Your task to perform on an android device: Open Google Maps Image 0: 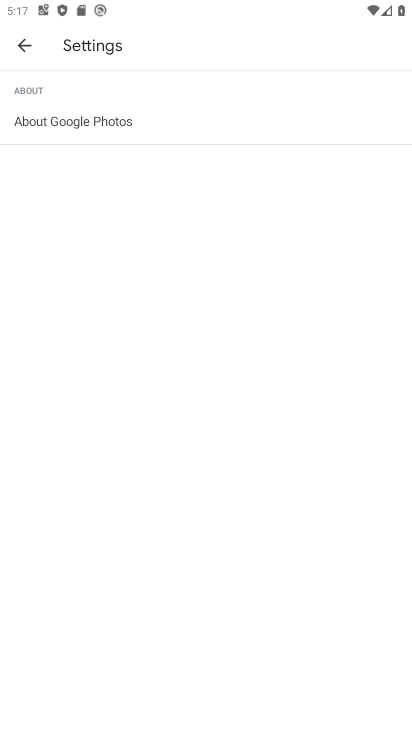
Step 0: click (133, 637)
Your task to perform on an android device: Open Google Maps Image 1: 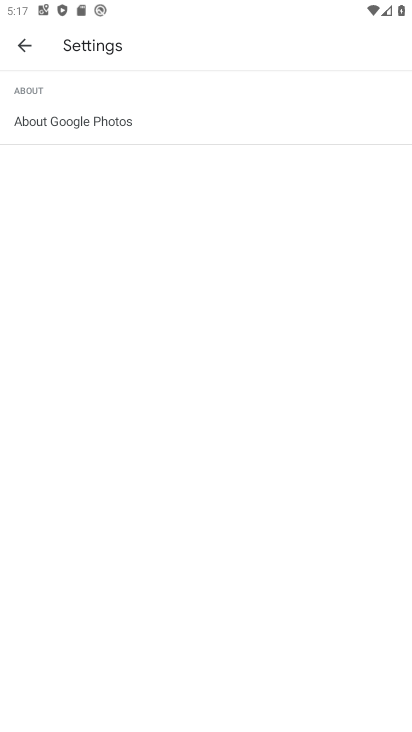
Step 1: press home button
Your task to perform on an android device: Open Google Maps Image 2: 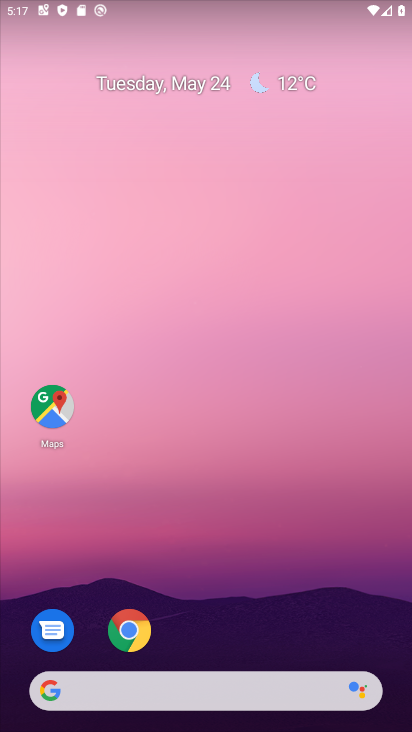
Step 2: click (122, 638)
Your task to perform on an android device: Open Google Maps Image 3: 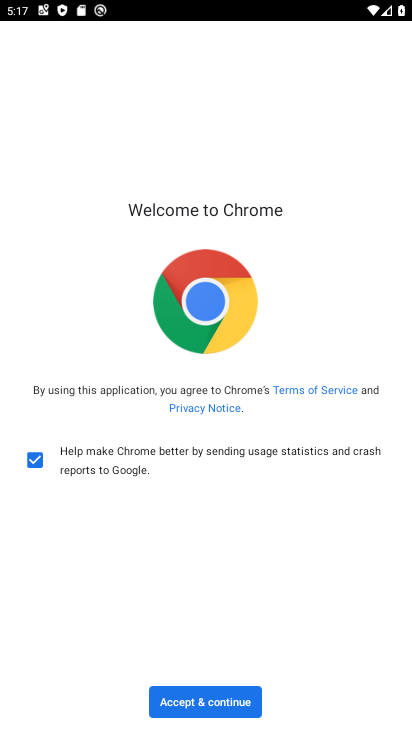
Step 3: click (197, 695)
Your task to perform on an android device: Open Google Maps Image 4: 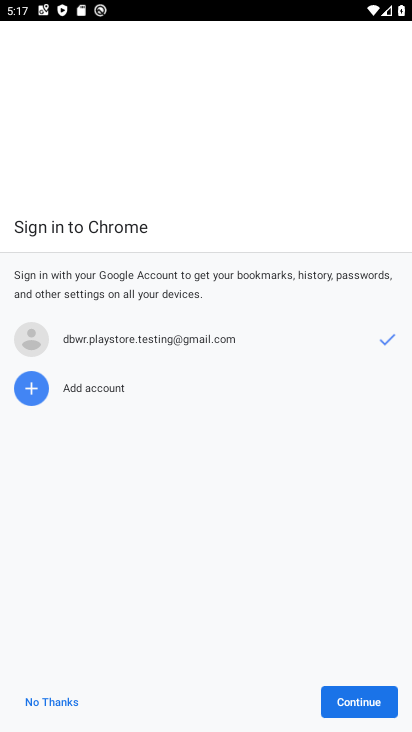
Step 4: click (361, 715)
Your task to perform on an android device: Open Google Maps Image 5: 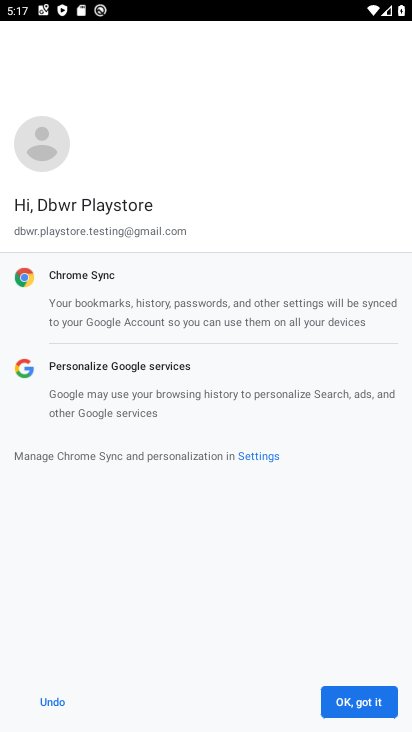
Step 5: click (386, 705)
Your task to perform on an android device: Open Google Maps Image 6: 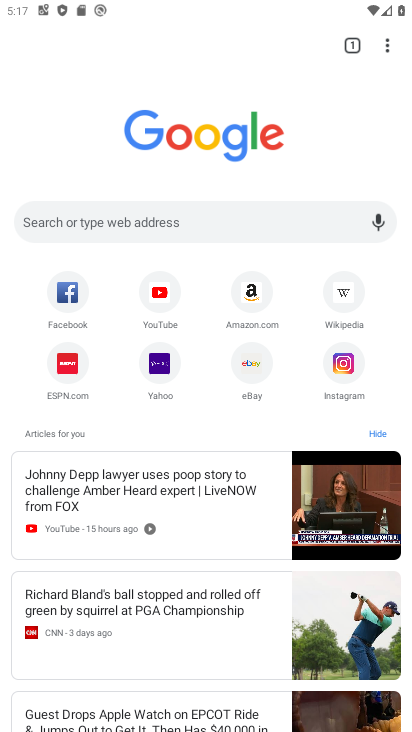
Step 6: press home button
Your task to perform on an android device: Open Google Maps Image 7: 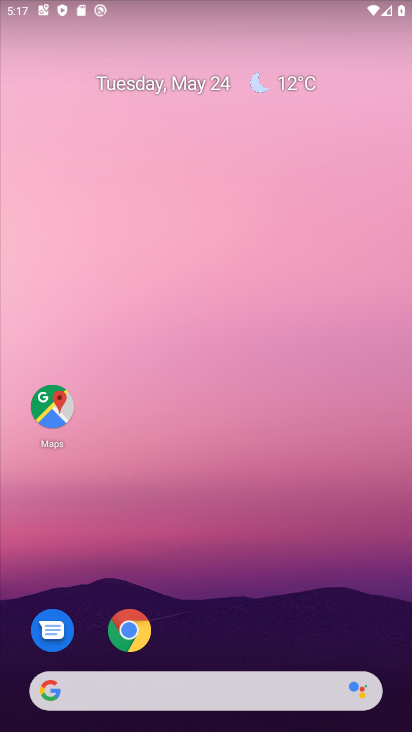
Step 7: click (70, 386)
Your task to perform on an android device: Open Google Maps Image 8: 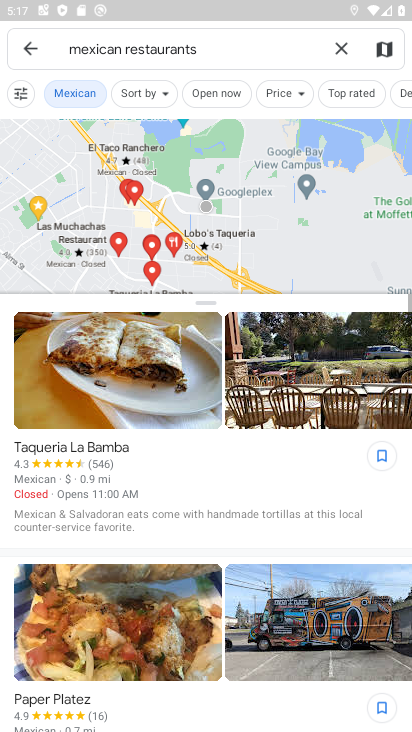
Step 8: task complete